Your task to perform on an android device: toggle notifications settings in the gmail app Image 0: 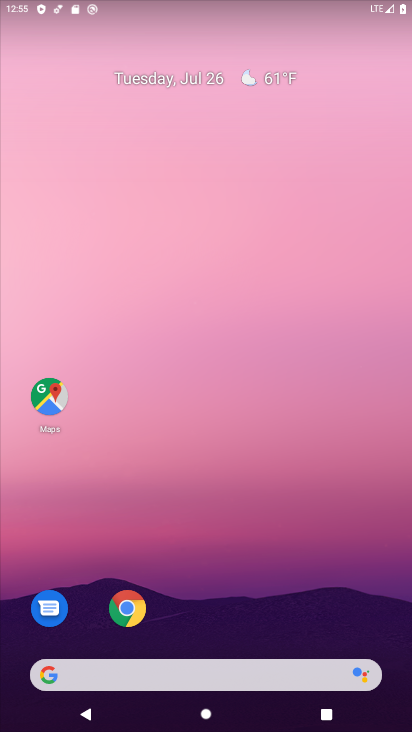
Step 0: drag from (299, 607) to (181, 96)
Your task to perform on an android device: toggle notifications settings in the gmail app Image 1: 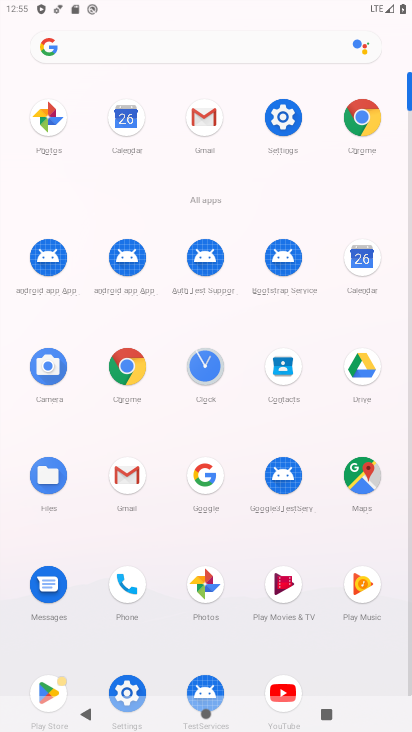
Step 1: click (209, 116)
Your task to perform on an android device: toggle notifications settings in the gmail app Image 2: 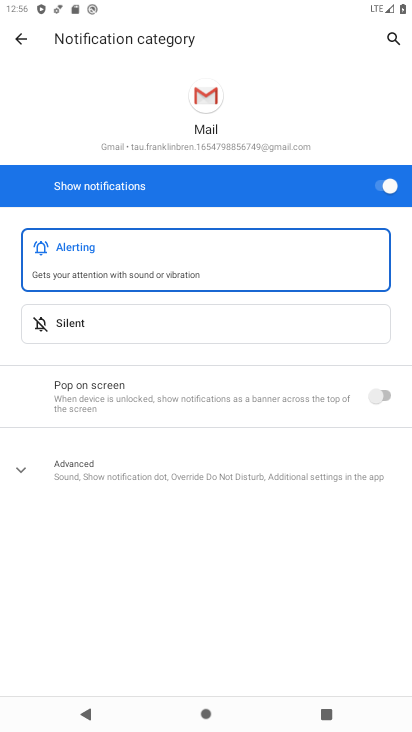
Step 2: click (285, 335)
Your task to perform on an android device: toggle notifications settings in the gmail app Image 3: 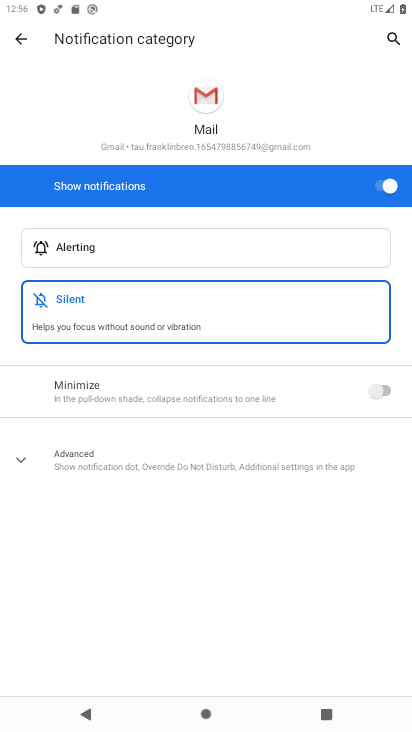
Step 3: click (370, 399)
Your task to perform on an android device: toggle notifications settings in the gmail app Image 4: 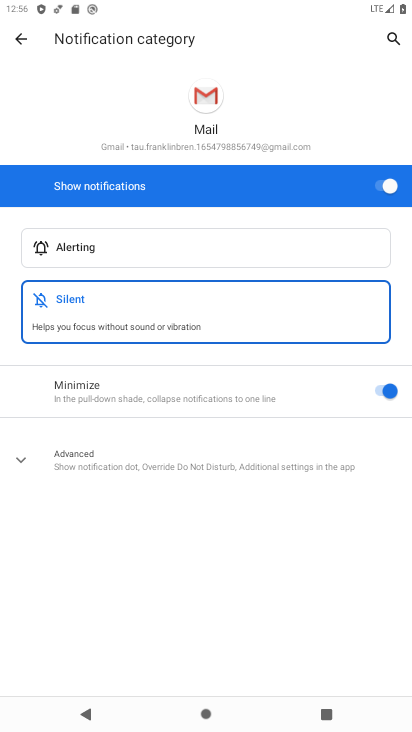
Step 4: task complete